Your task to perform on an android device: toggle wifi Image 0: 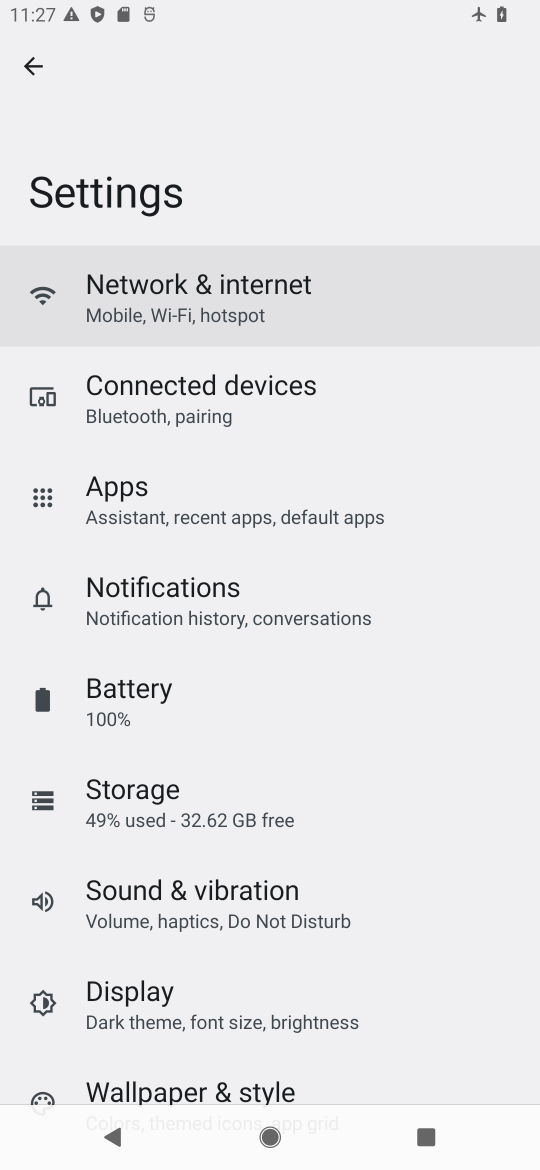
Step 0: click (301, 317)
Your task to perform on an android device: toggle wifi Image 1: 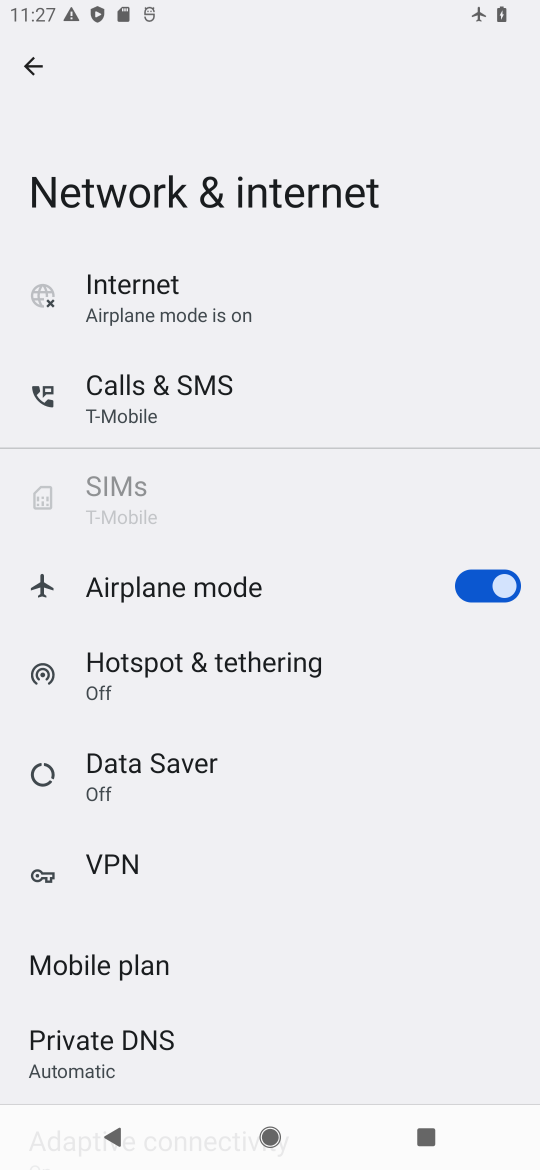
Step 1: click (251, 307)
Your task to perform on an android device: toggle wifi Image 2: 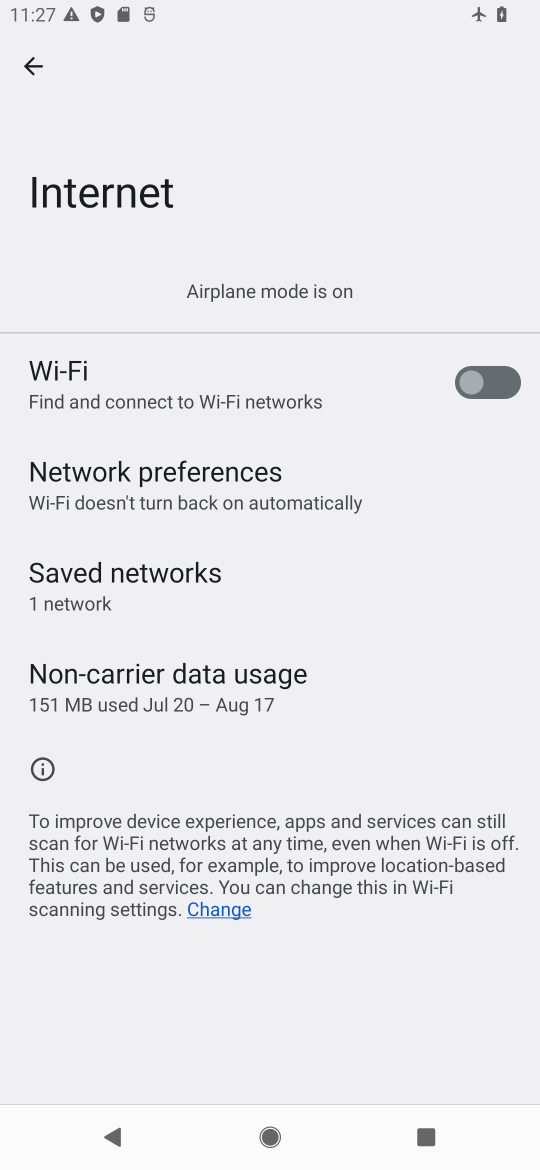
Step 2: click (496, 387)
Your task to perform on an android device: toggle wifi Image 3: 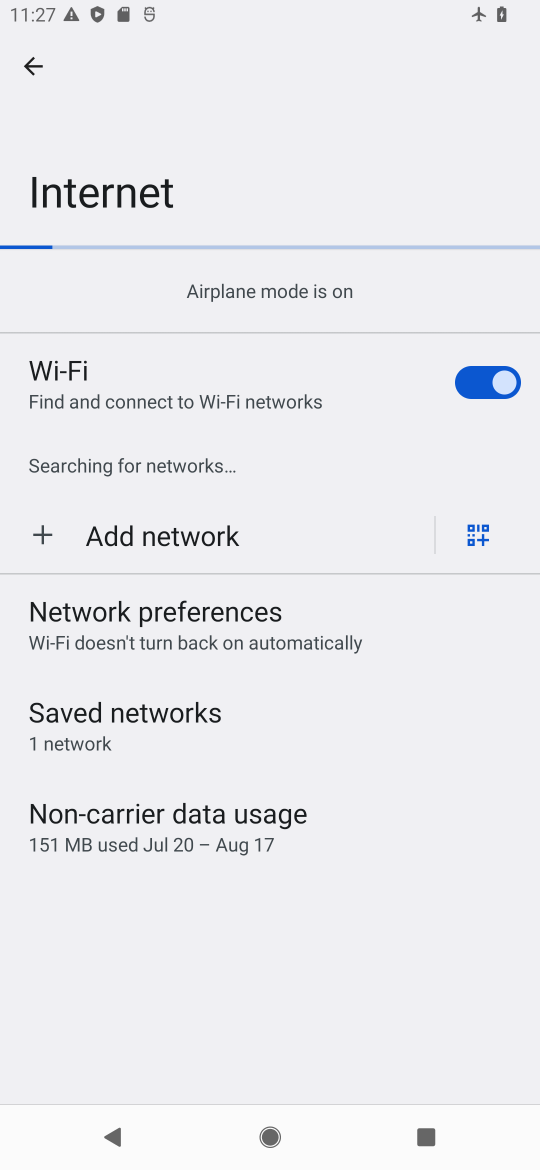
Step 3: task complete